Your task to perform on an android device: change the clock display to show seconds Image 0: 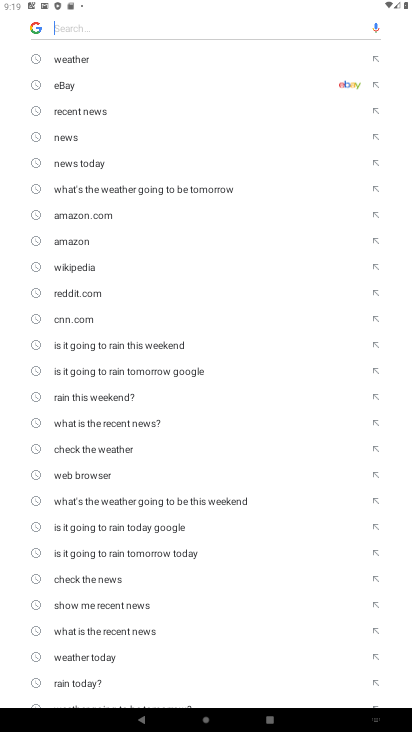
Step 0: press home button
Your task to perform on an android device: change the clock display to show seconds Image 1: 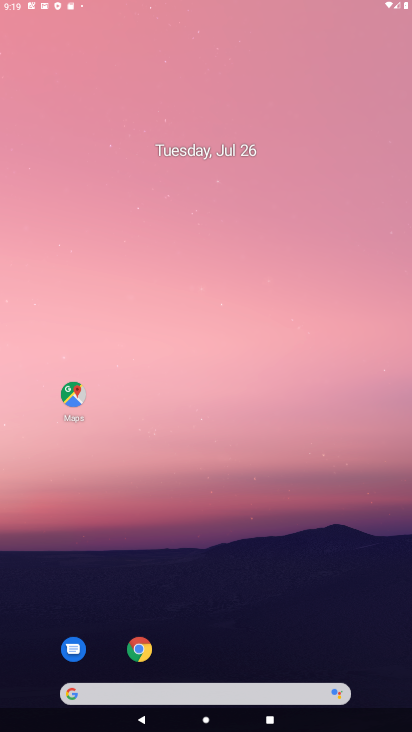
Step 1: drag from (135, 679) to (249, 131)
Your task to perform on an android device: change the clock display to show seconds Image 2: 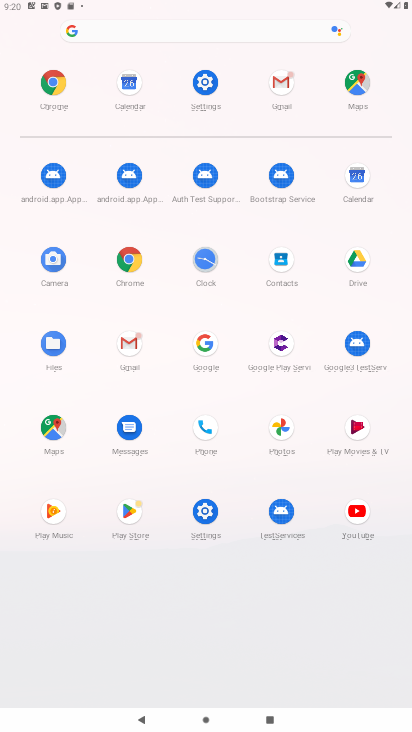
Step 2: click (205, 256)
Your task to perform on an android device: change the clock display to show seconds Image 3: 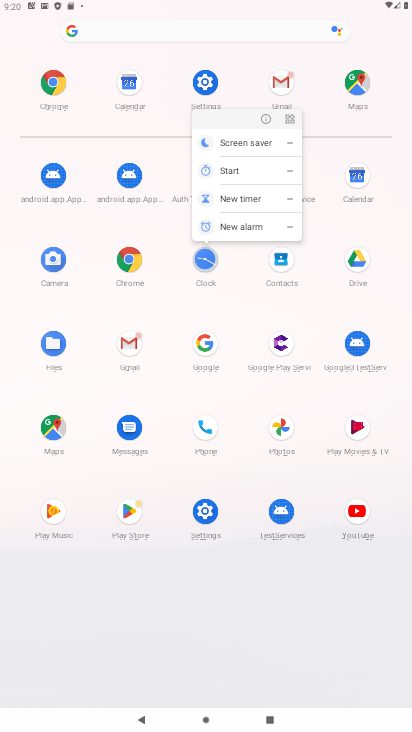
Step 3: click (263, 118)
Your task to perform on an android device: change the clock display to show seconds Image 4: 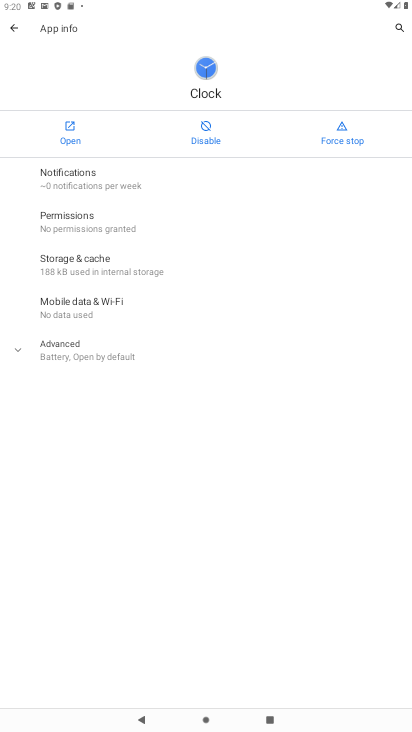
Step 4: click (71, 129)
Your task to perform on an android device: change the clock display to show seconds Image 5: 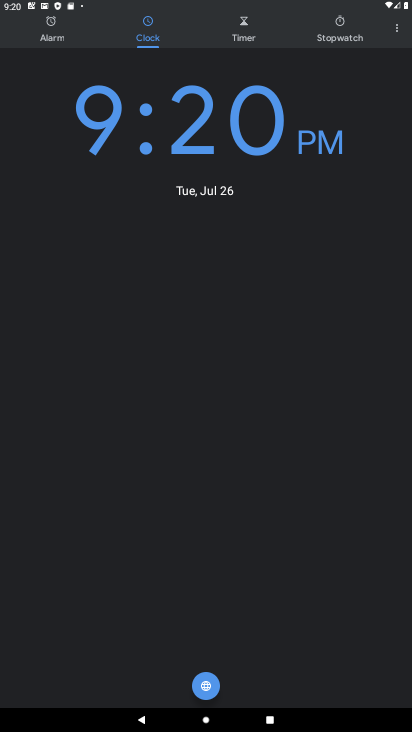
Step 5: drag from (386, 33) to (393, 91)
Your task to perform on an android device: change the clock display to show seconds Image 6: 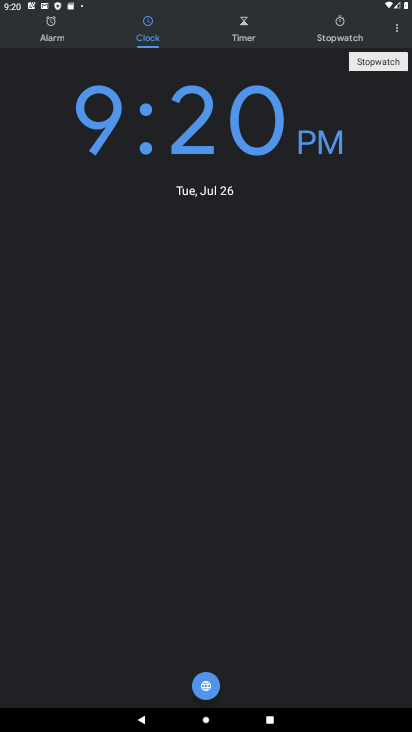
Step 6: click (399, 28)
Your task to perform on an android device: change the clock display to show seconds Image 7: 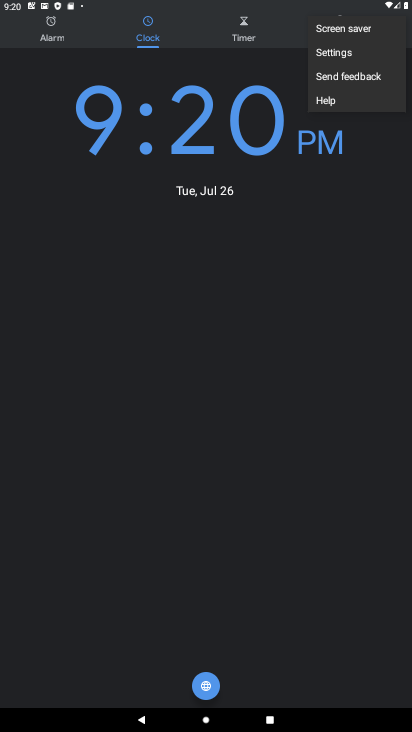
Step 7: click (334, 50)
Your task to perform on an android device: change the clock display to show seconds Image 8: 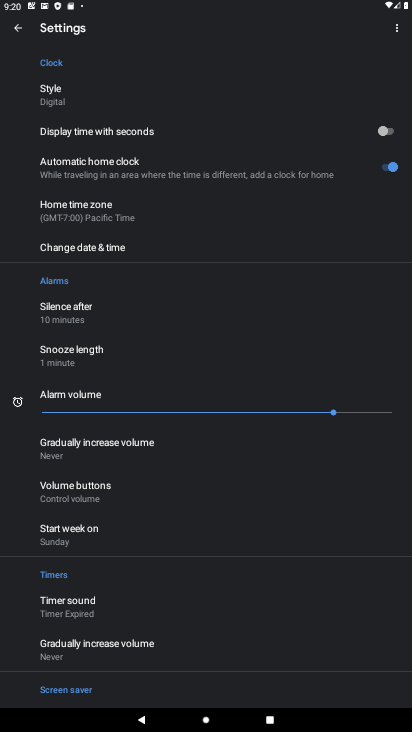
Step 8: click (356, 123)
Your task to perform on an android device: change the clock display to show seconds Image 9: 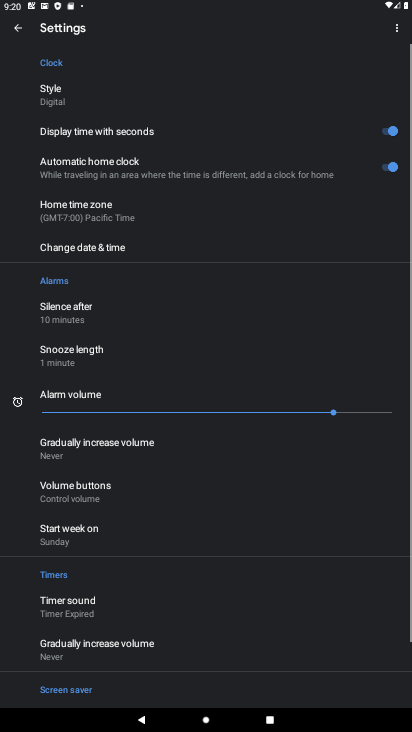
Step 9: task complete